Your task to perform on an android device: Add "dell alienware" to the cart on ebay, then select checkout. Image 0: 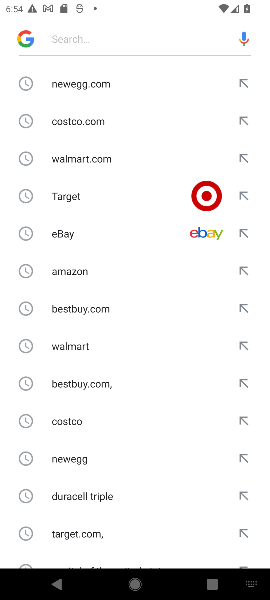
Step 0: click (103, 241)
Your task to perform on an android device: Add "dell alienware" to the cart on ebay, then select checkout. Image 1: 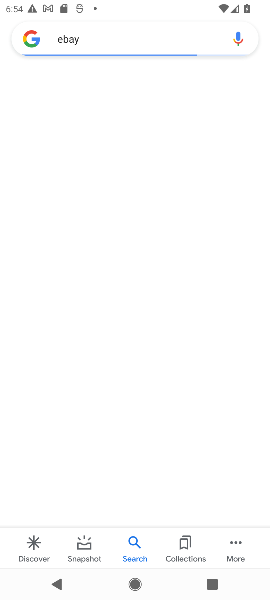
Step 1: click (65, 239)
Your task to perform on an android device: Add "dell alienware" to the cart on ebay, then select checkout. Image 2: 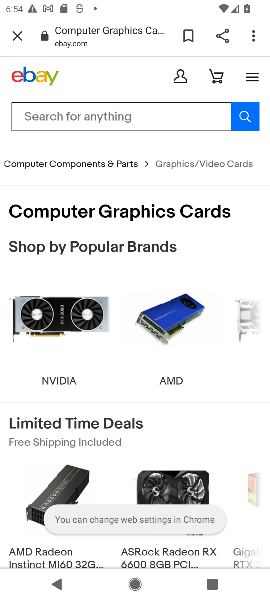
Step 2: click (85, 119)
Your task to perform on an android device: Add "dell alienware" to the cart on ebay, then select checkout. Image 3: 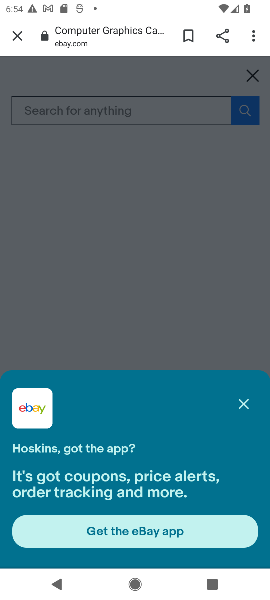
Step 3: click (245, 407)
Your task to perform on an android device: Add "dell alienware" to the cart on ebay, then select checkout. Image 4: 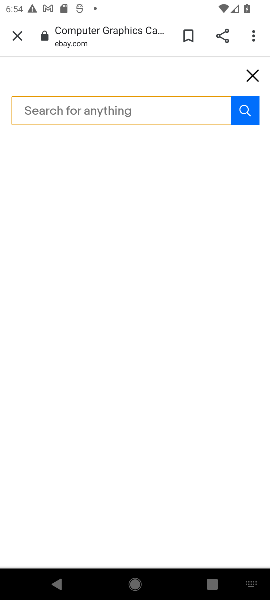
Step 4: click (77, 115)
Your task to perform on an android device: Add "dell alienware" to the cart on ebay, then select checkout. Image 5: 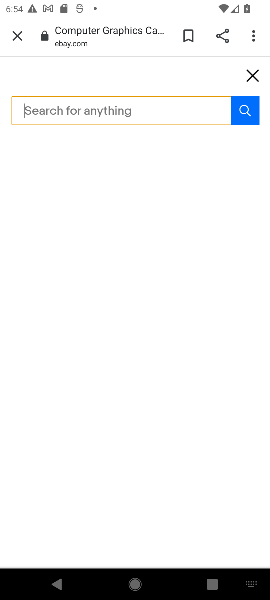
Step 5: type "dell alienware"
Your task to perform on an android device: Add "dell alienware" to the cart on ebay, then select checkout. Image 6: 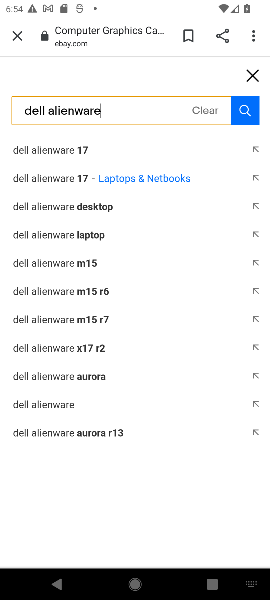
Step 6: click (245, 118)
Your task to perform on an android device: Add "dell alienware" to the cart on ebay, then select checkout. Image 7: 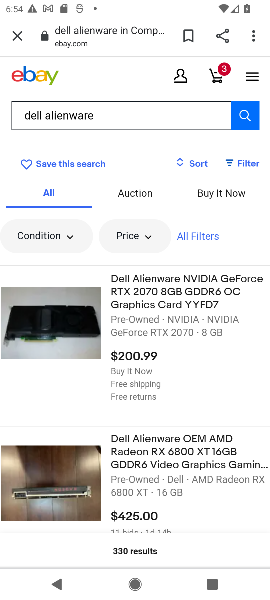
Step 7: click (182, 296)
Your task to perform on an android device: Add "dell alienware" to the cart on ebay, then select checkout. Image 8: 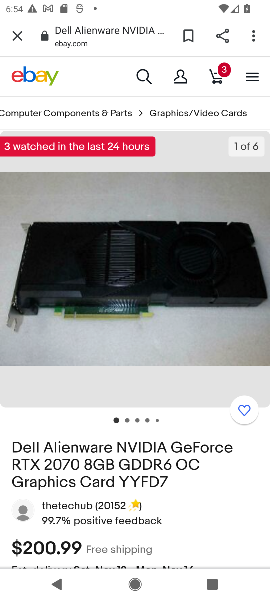
Step 8: click (147, 160)
Your task to perform on an android device: Add "dell alienware" to the cart on ebay, then select checkout. Image 9: 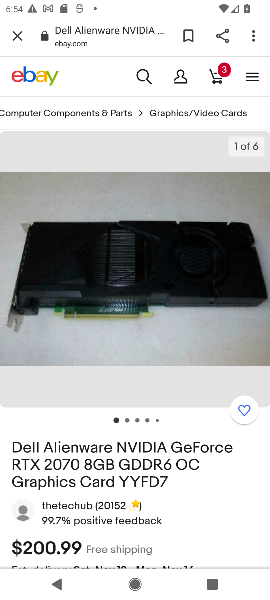
Step 9: drag from (192, 190) to (191, 151)
Your task to perform on an android device: Add "dell alienware" to the cart on ebay, then select checkout. Image 10: 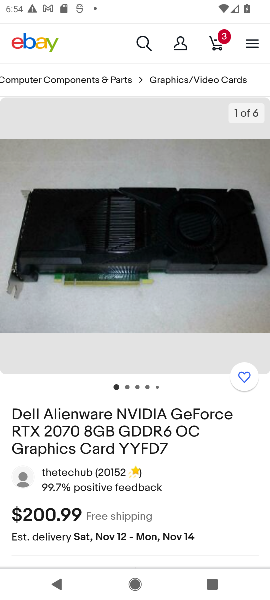
Step 10: drag from (111, 428) to (116, 222)
Your task to perform on an android device: Add "dell alienware" to the cart on ebay, then select checkout. Image 11: 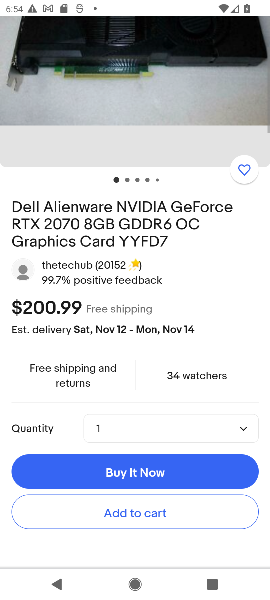
Step 11: drag from (118, 481) to (143, 96)
Your task to perform on an android device: Add "dell alienware" to the cart on ebay, then select checkout. Image 12: 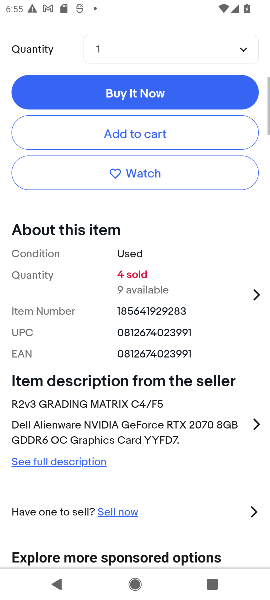
Step 12: click (121, 47)
Your task to perform on an android device: Add "dell alienware" to the cart on ebay, then select checkout. Image 13: 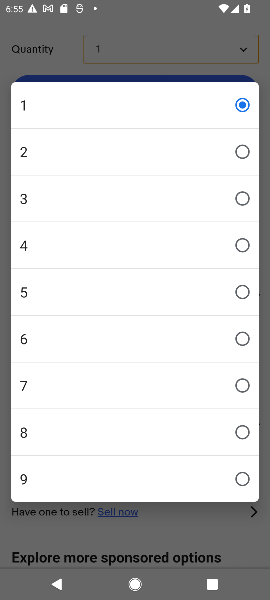
Step 13: click (134, 540)
Your task to perform on an android device: Add "dell alienware" to the cart on ebay, then select checkout. Image 14: 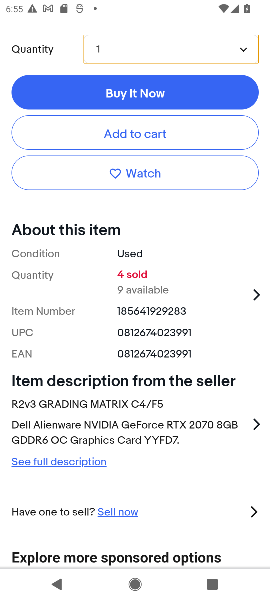
Step 14: click (97, 134)
Your task to perform on an android device: Add "dell alienware" to the cart on ebay, then select checkout. Image 15: 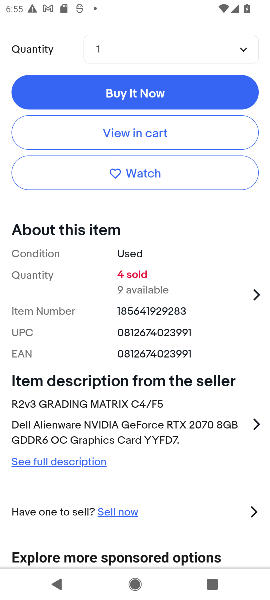
Step 15: click (119, 135)
Your task to perform on an android device: Add "dell alienware" to the cart on ebay, then select checkout. Image 16: 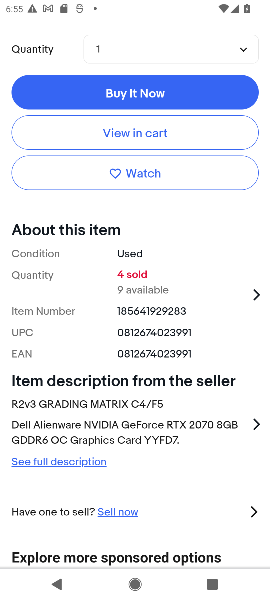
Step 16: click (119, 135)
Your task to perform on an android device: Add "dell alienware" to the cart on ebay, then select checkout. Image 17: 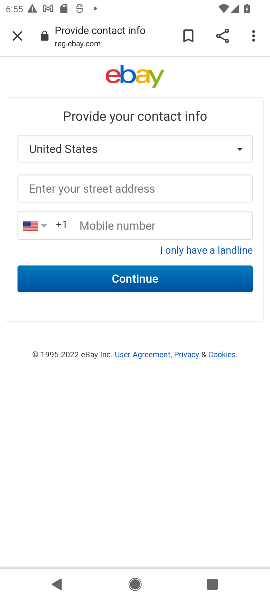
Step 17: task complete